Your task to perform on an android device: Open the Play Movies app and select the watchlist tab. Image 0: 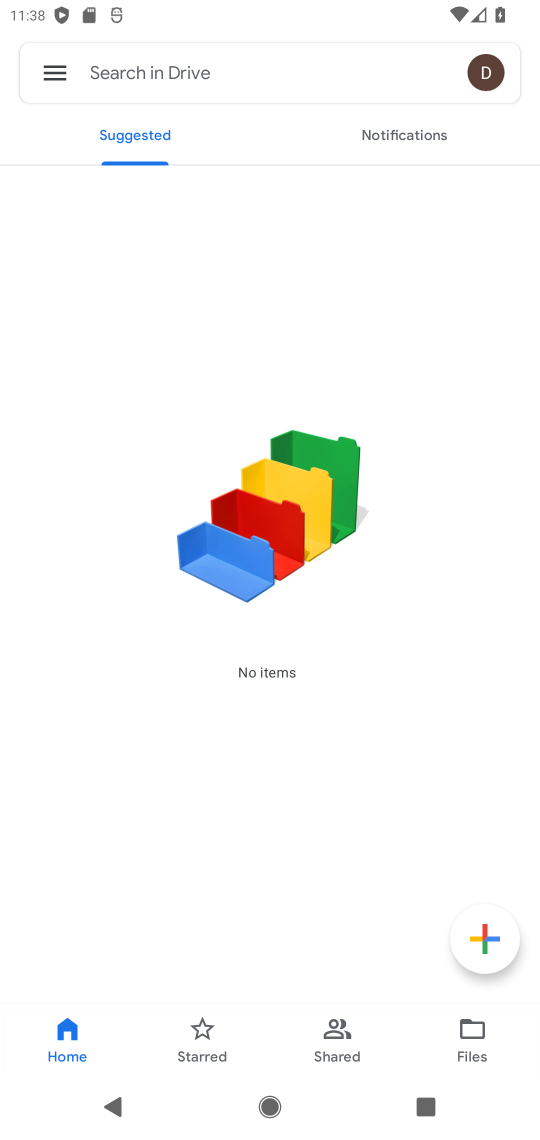
Step 0: press home button
Your task to perform on an android device: Open the Play Movies app and select the watchlist tab. Image 1: 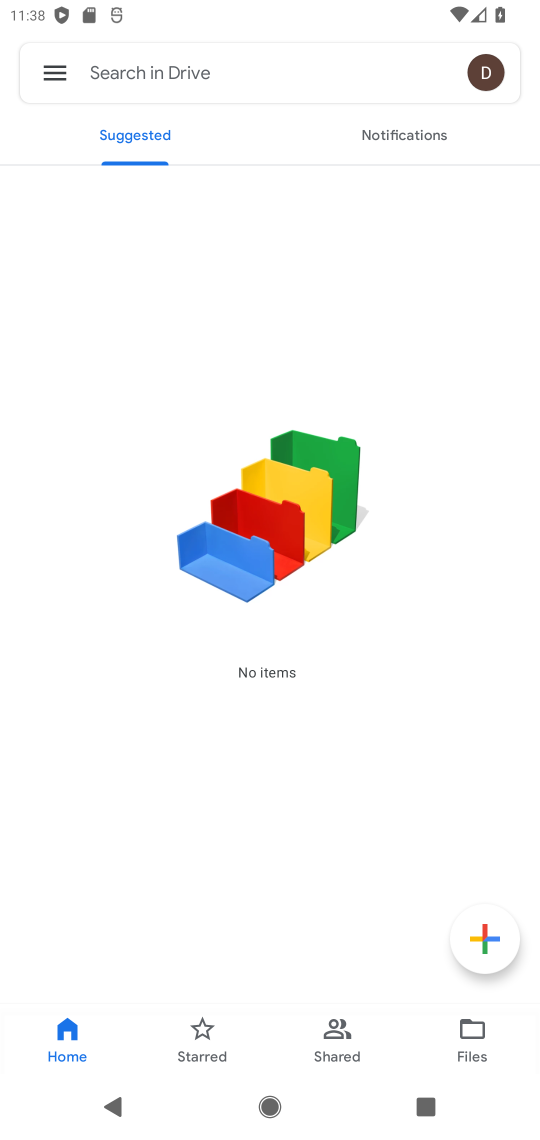
Step 1: task complete